Your task to perform on an android device: check storage Image 0: 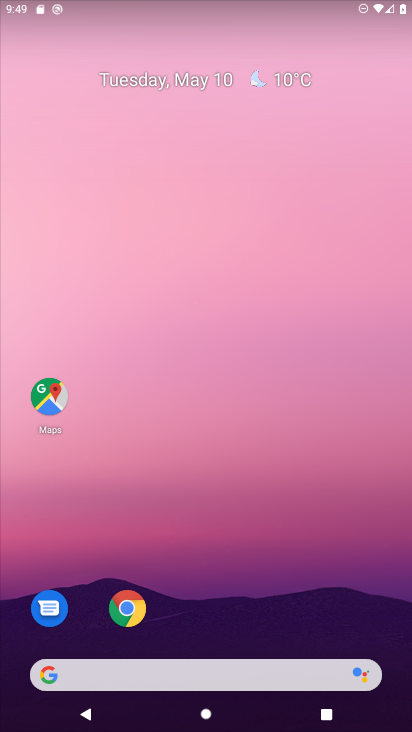
Step 0: drag from (378, 625) to (275, 56)
Your task to perform on an android device: check storage Image 1: 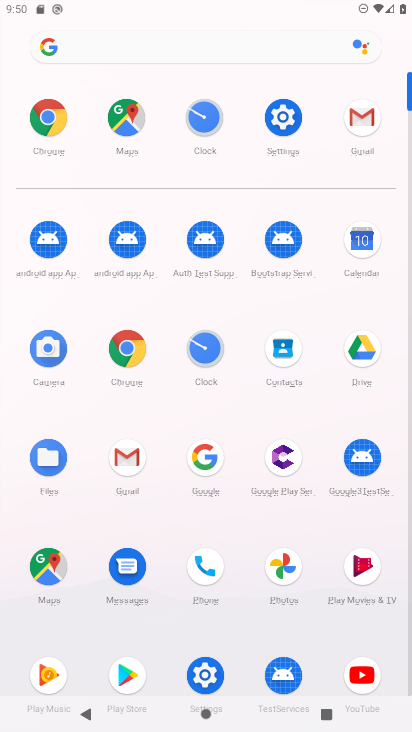
Step 1: click (217, 665)
Your task to perform on an android device: check storage Image 2: 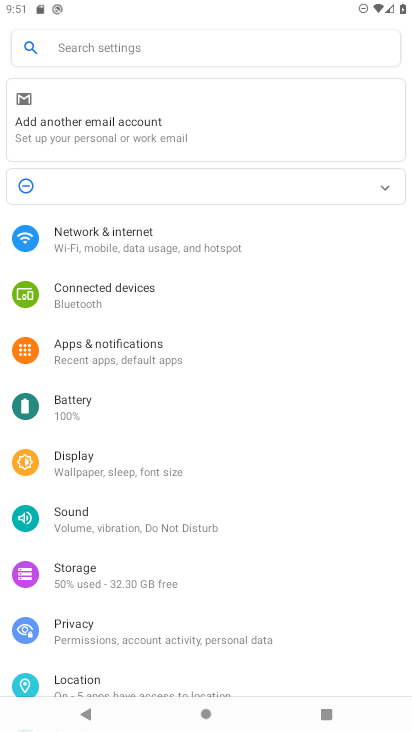
Step 2: click (144, 564)
Your task to perform on an android device: check storage Image 3: 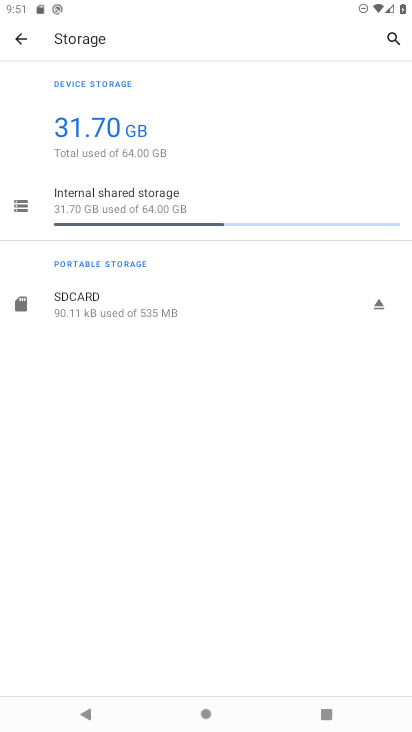
Step 3: click (144, 186)
Your task to perform on an android device: check storage Image 4: 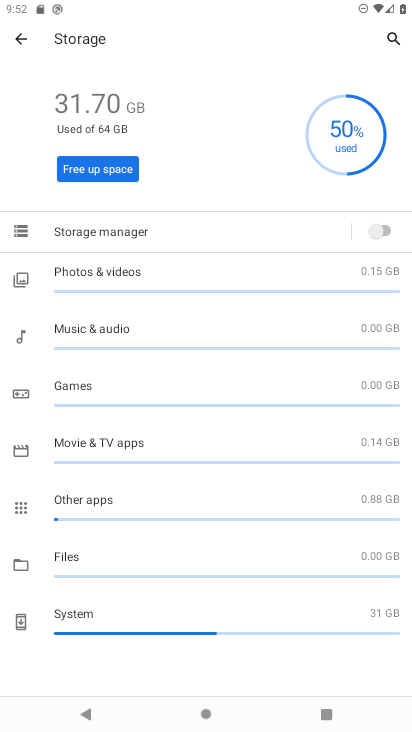
Step 4: task complete